Your task to perform on an android device: Go to sound settings Image 0: 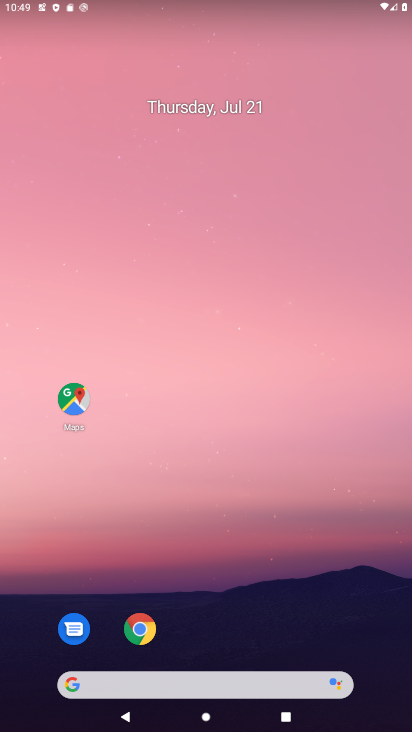
Step 0: drag from (219, 606) to (205, 302)
Your task to perform on an android device: Go to sound settings Image 1: 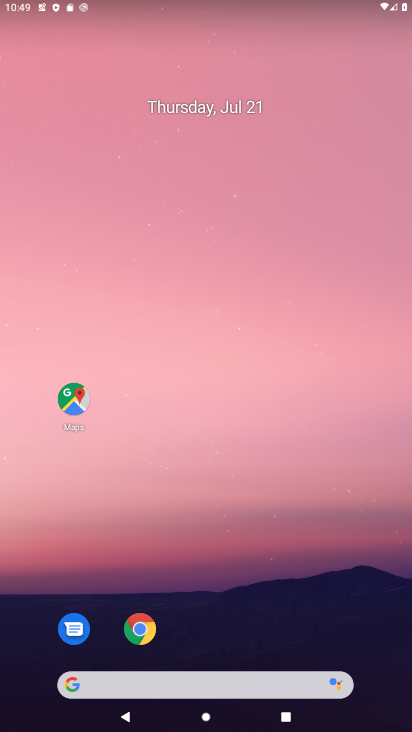
Step 1: drag from (256, 579) to (250, 307)
Your task to perform on an android device: Go to sound settings Image 2: 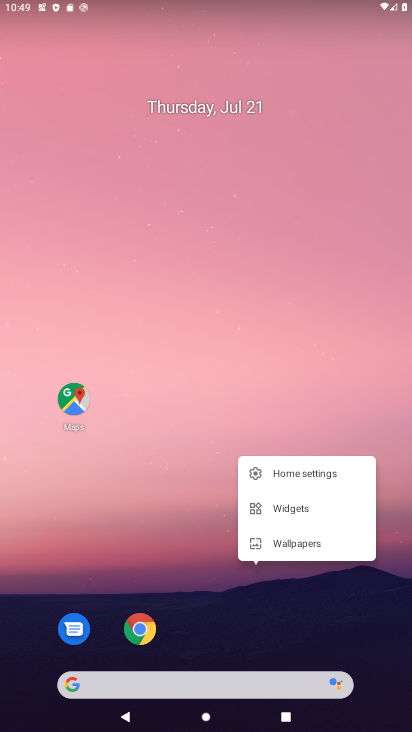
Step 2: click (192, 476)
Your task to perform on an android device: Go to sound settings Image 3: 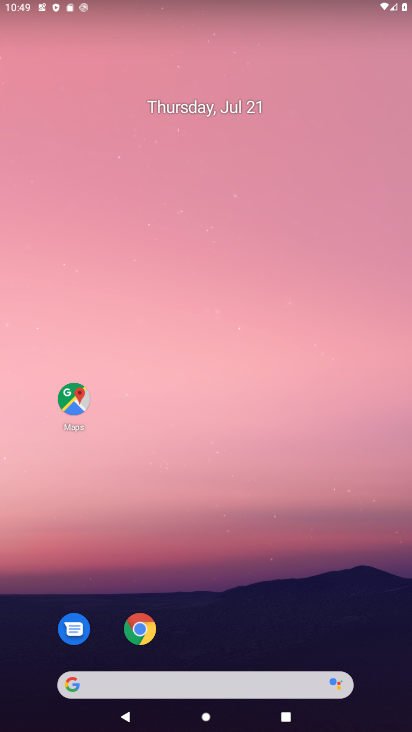
Step 3: drag from (192, 476) to (263, 180)
Your task to perform on an android device: Go to sound settings Image 4: 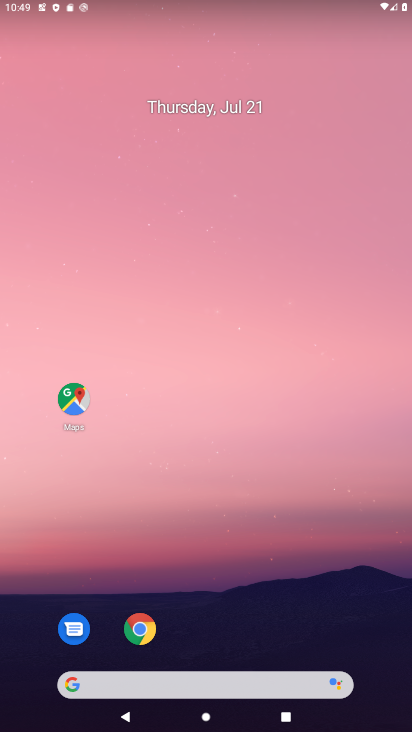
Step 4: drag from (278, 588) to (260, 316)
Your task to perform on an android device: Go to sound settings Image 5: 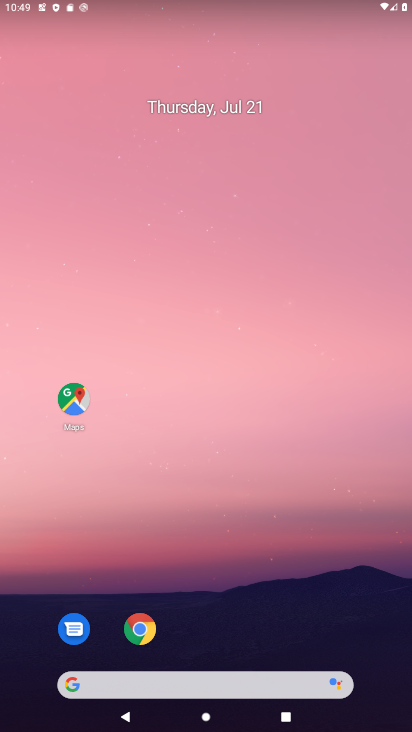
Step 5: drag from (262, 477) to (256, 144)
Your task to perform on an android device: Go to sound settings Image 6: 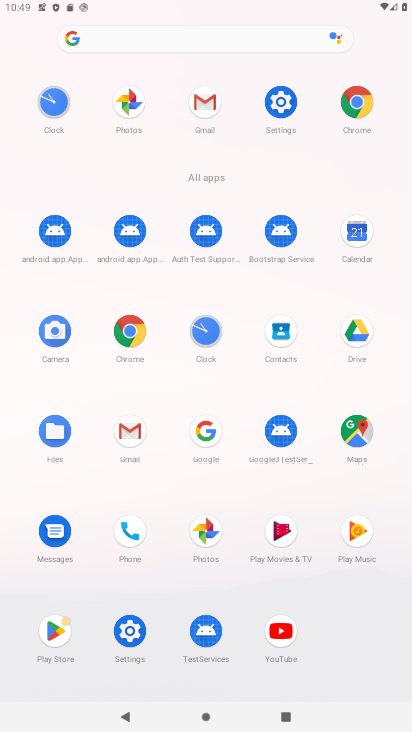
Step 6: click (266, 588)
Your task to perform on an android device: Go to sound settings Image 7: 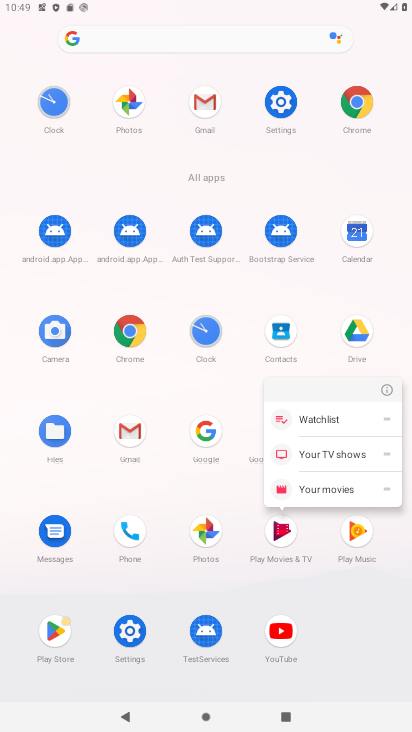
Step 7: click (345, 628)
Your task to perform on an android device: Go to sound settings Image 8: 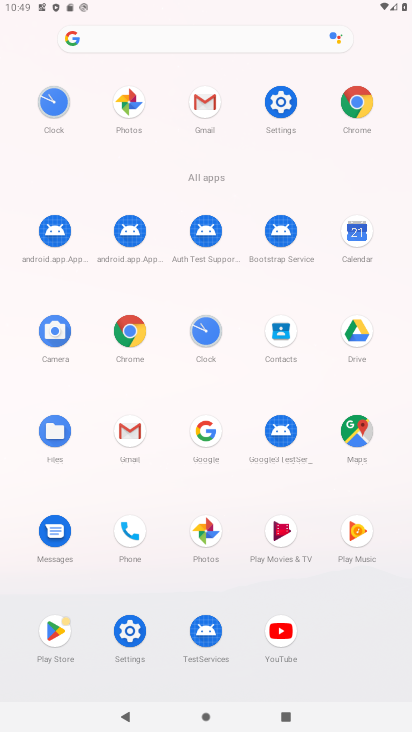
Step 8: click (132, 638)
Your task to perform on an android device: Go to sound settings Image 9: 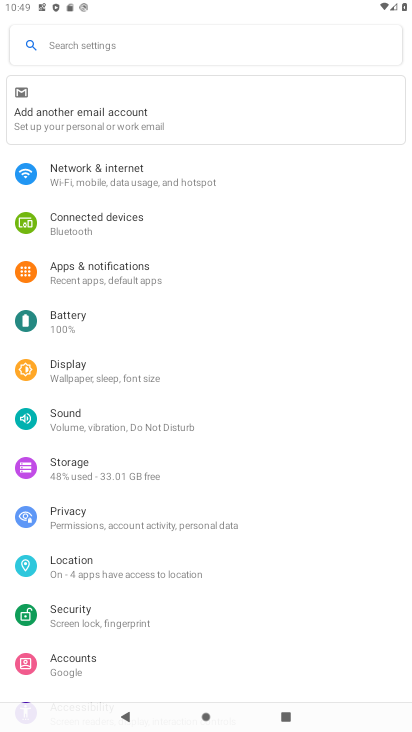
Step 9: click (97, 409)
Your task to perform on an android device: Go to sound settings Image 10: 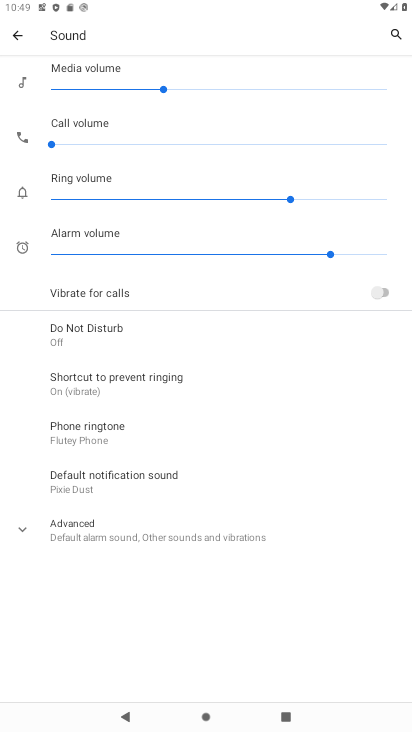
Step 10: task complete